Your task to perform on an android device: Open Chrome and go to settings Image 0: 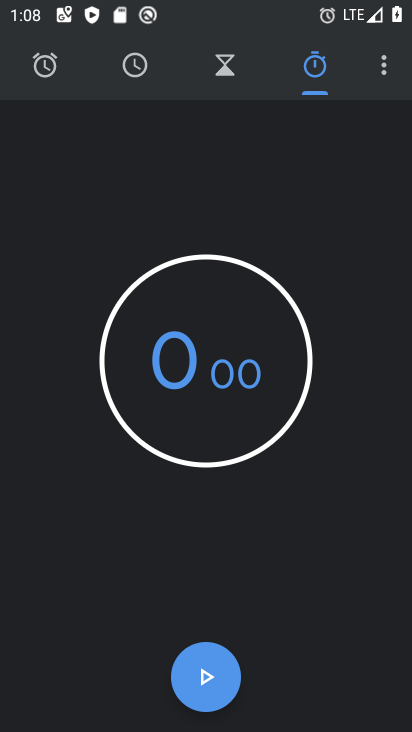
Step 0: press home button
Your task to perform on an android device: Open Chrome and go to settings Image 1: 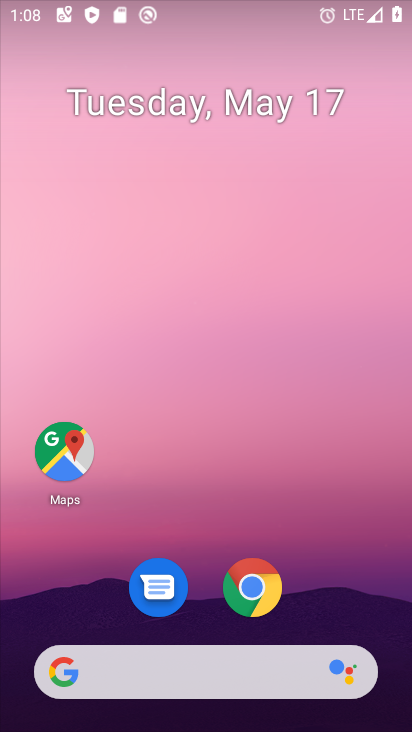
Step 1: drag from (389, 638) to (251, 45)
Your task to perform on an android device: Open Chrome and go to settings Image 2: 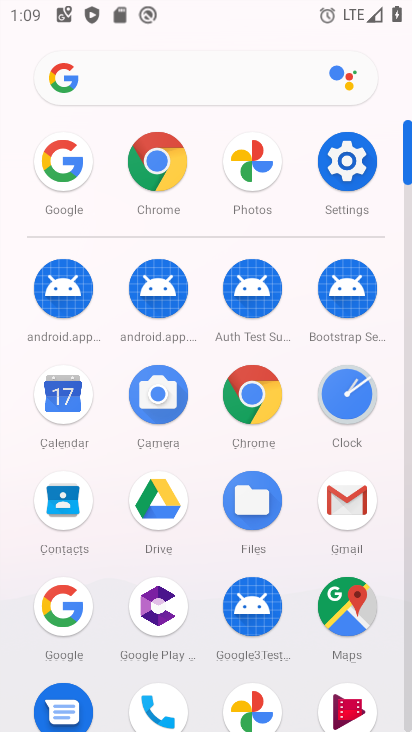
Step 2: click (249, 394)
Your task to perform on an android device: Open Chrome and go to settings Image 3: 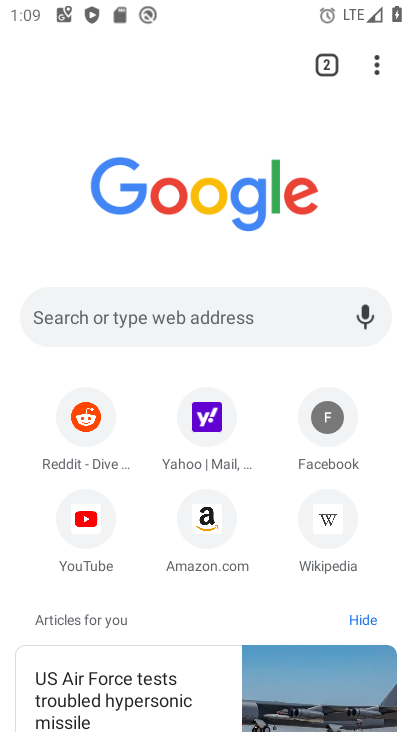
Step 3: click (379, 64)
Your task to perform on an android device: Open Chrome and go to settings Image 4: 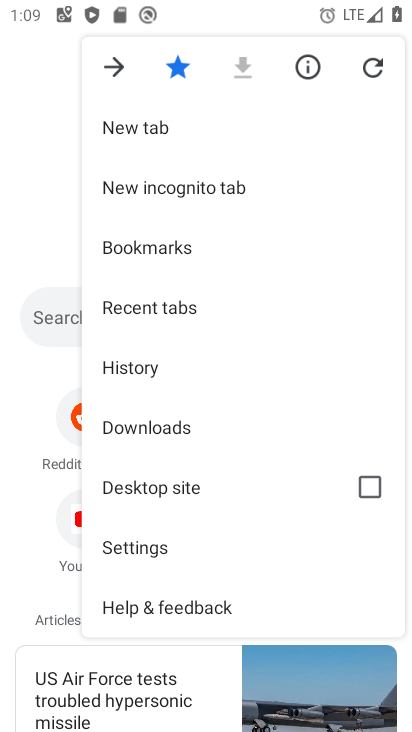
Step 4: click (155, 543)
Your task to perform on an android device: Open Chrome and go to settings Image 5: 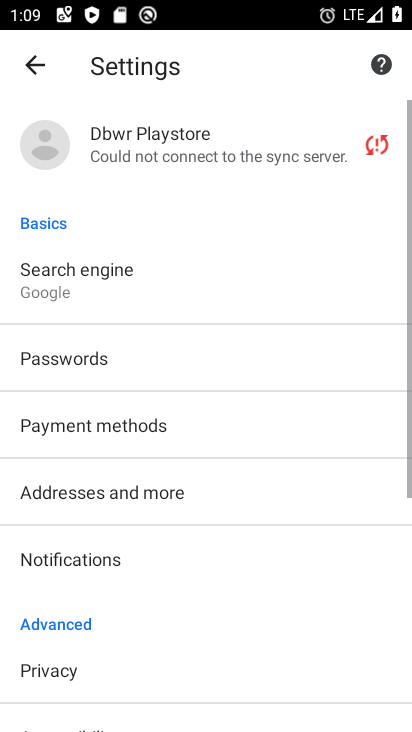
Step 5: task complete